Your task to perform on an android device: open chrome privacy settings Image 0: 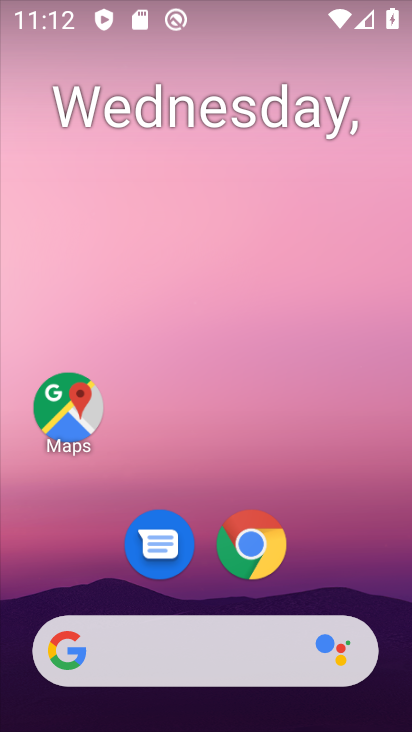
Step 0: click (265, 549)
Your task to perform on an android device: open chrome privacy settings Image 1: 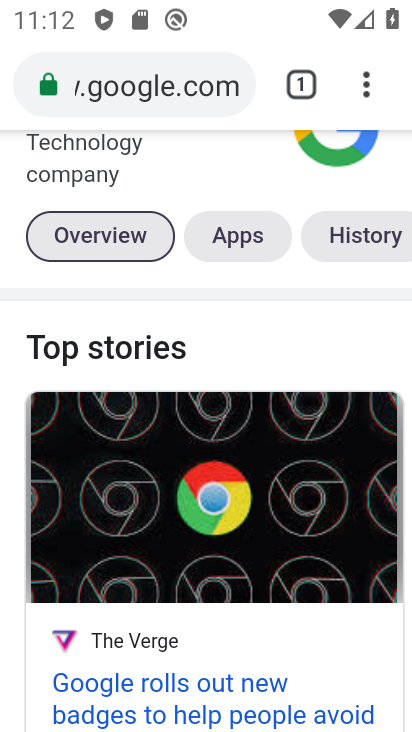
Step 1: click (363, 80)
Your task to perform on an android device: open chrome privacy settings Image 2: 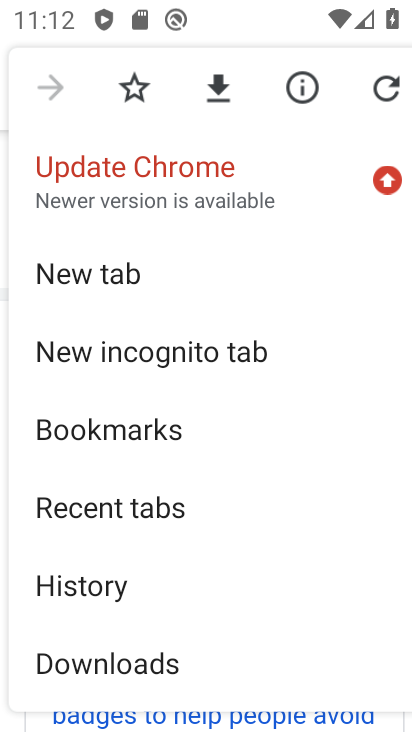
Step 2: drag from (189, 595) to (201, 261)
Your task to perform on an android device: open chrome privacy settings Image 3: 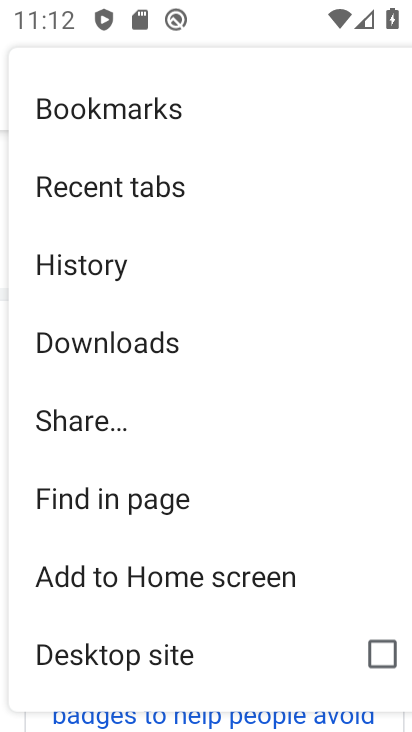
Step 3: drag from (194, 625) to (195, 359)
Your task to perform on an android device: open chrome privacy settings Image 4: 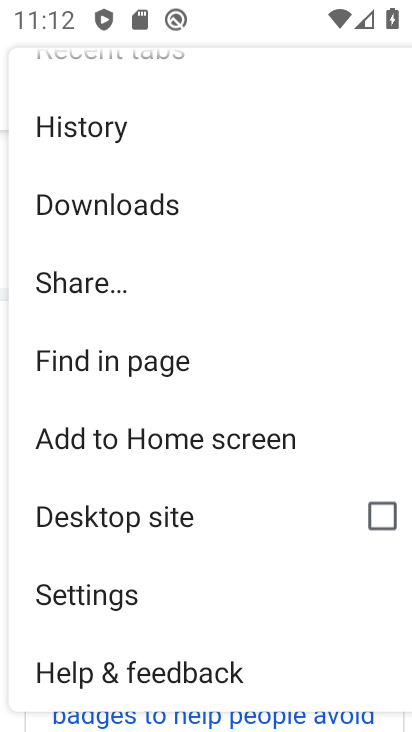
Step 4: click (141, 589)
Your task to perform on an android device: open chrome privacy settings Image 5: 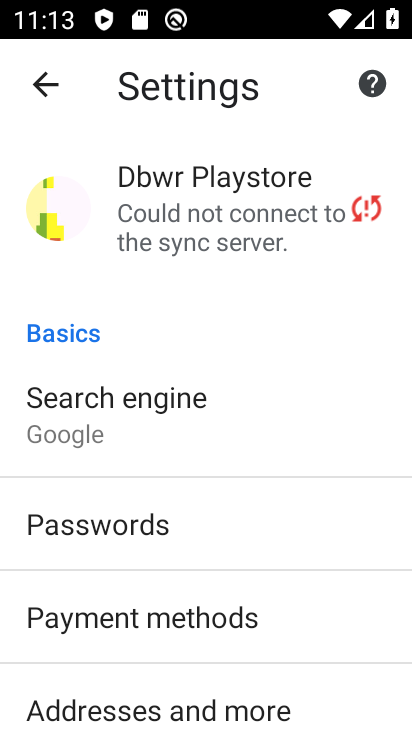
Step 5: drag from (203, 608) to (215, 174)
Your task to perform on an android device: open chrome privacy settings Image 6: 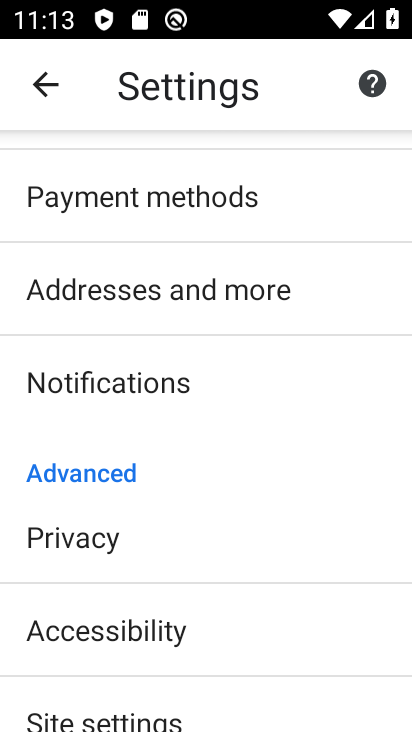
Step 6: click (135, 535)
Your task to perform on an android device: open chrome privacy settings Image 7: 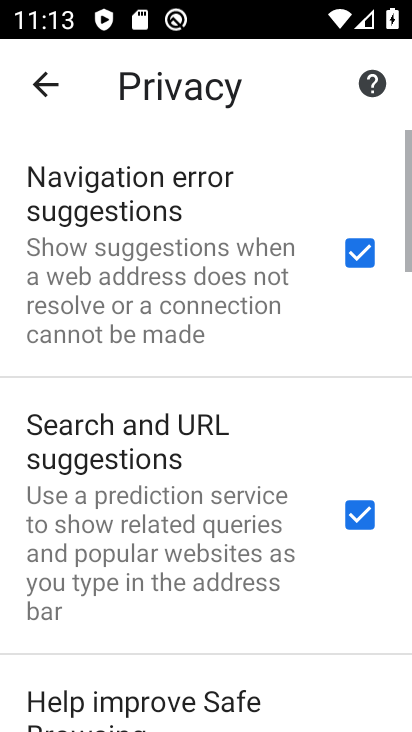
Step 7: task complete